Your task to perform on an android device: set the timer Image 0: 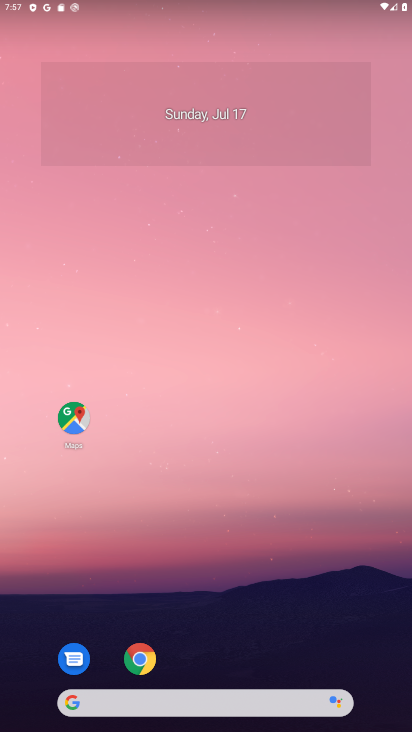
Step 0: drag from (278, 586) to (234, 226)
Your task to perform on an android device: set the timer Image 1: 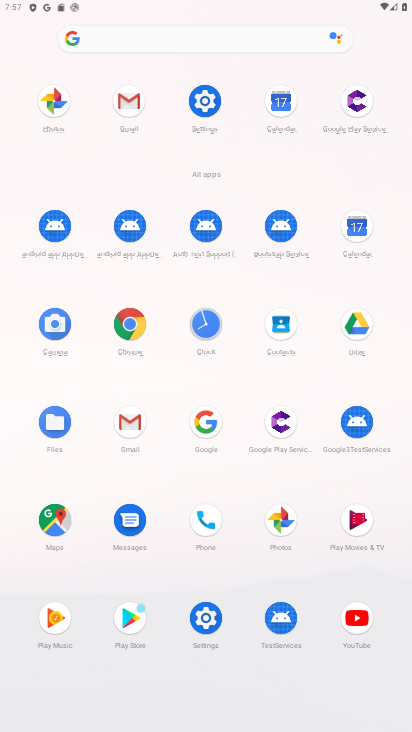
Step 1: click (205, 320)
Your task to perform on an android device: set the timer Image 2: 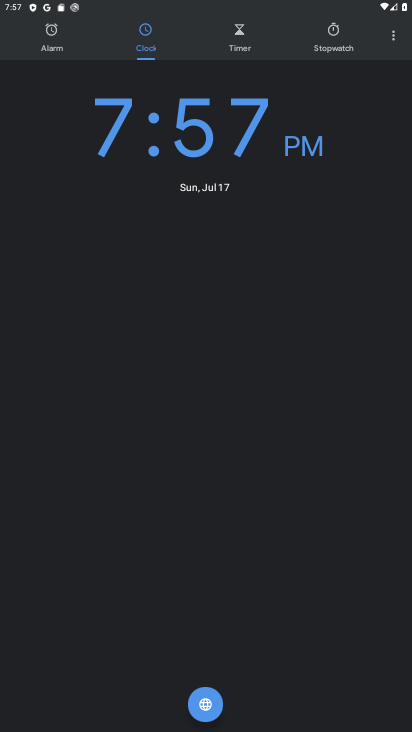
Step 2: click (234, 27)
Your task to perform on an android device: set the timer Image 3: 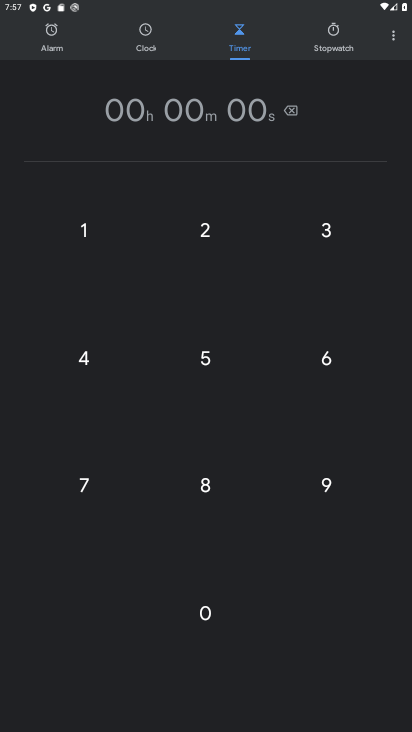
Step 3: click (206, 236)
Your task to perform on an android device: set the timer Image 4: 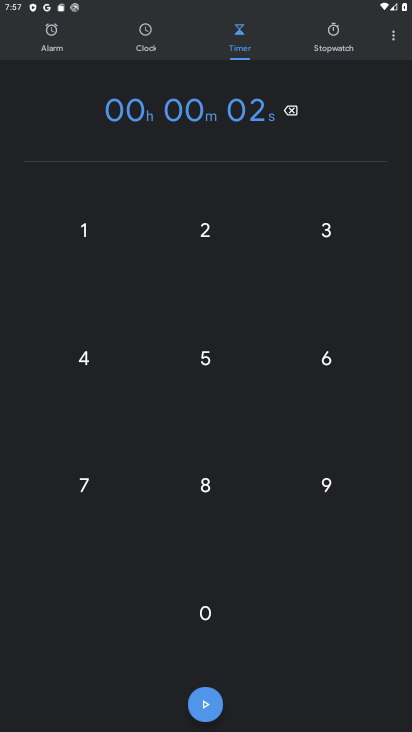
Step 4: task complete